Your task to perform on an android device: Add "logitech g pro" to the cart on target Image 0: 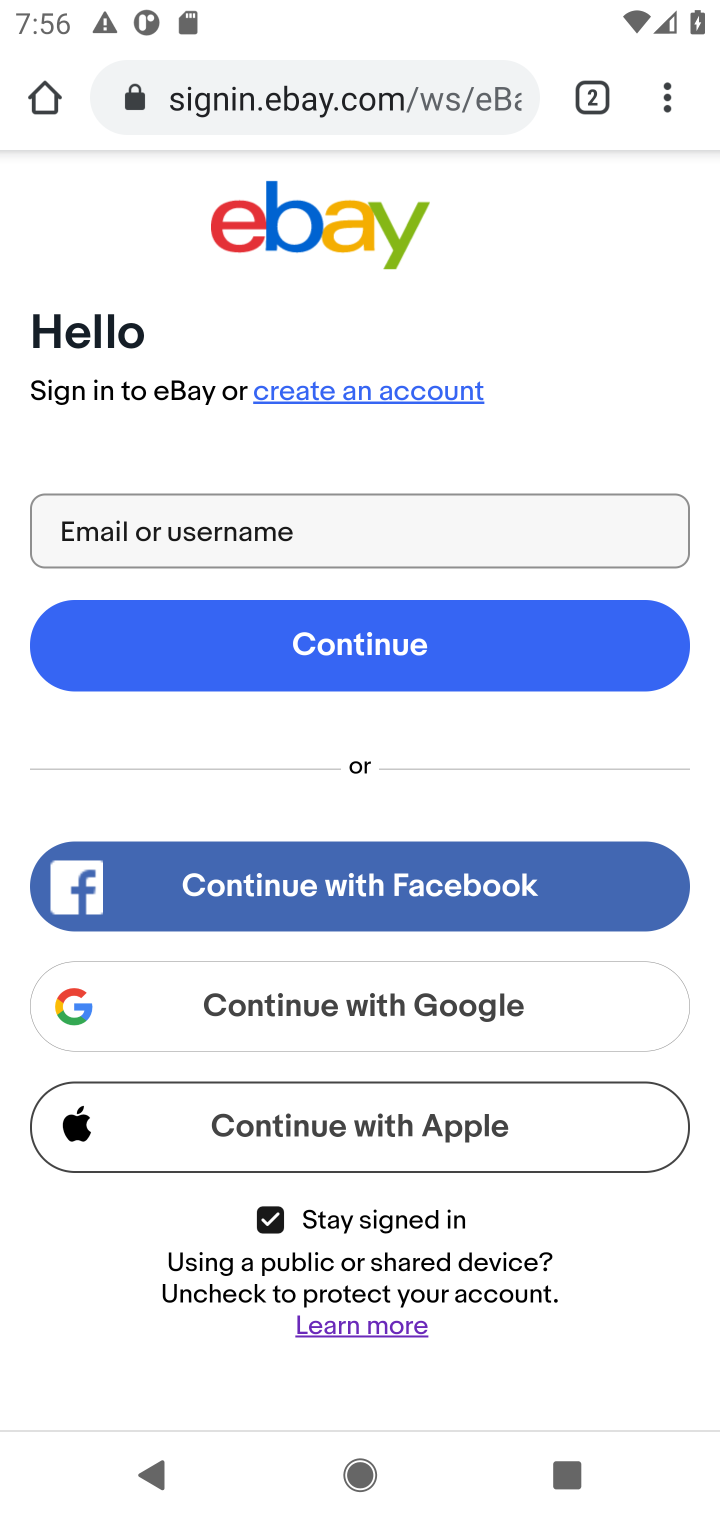
Step 0: press home button
Your task to perform on an android device: Add "logitech g pro" to the cart on target Image 1: 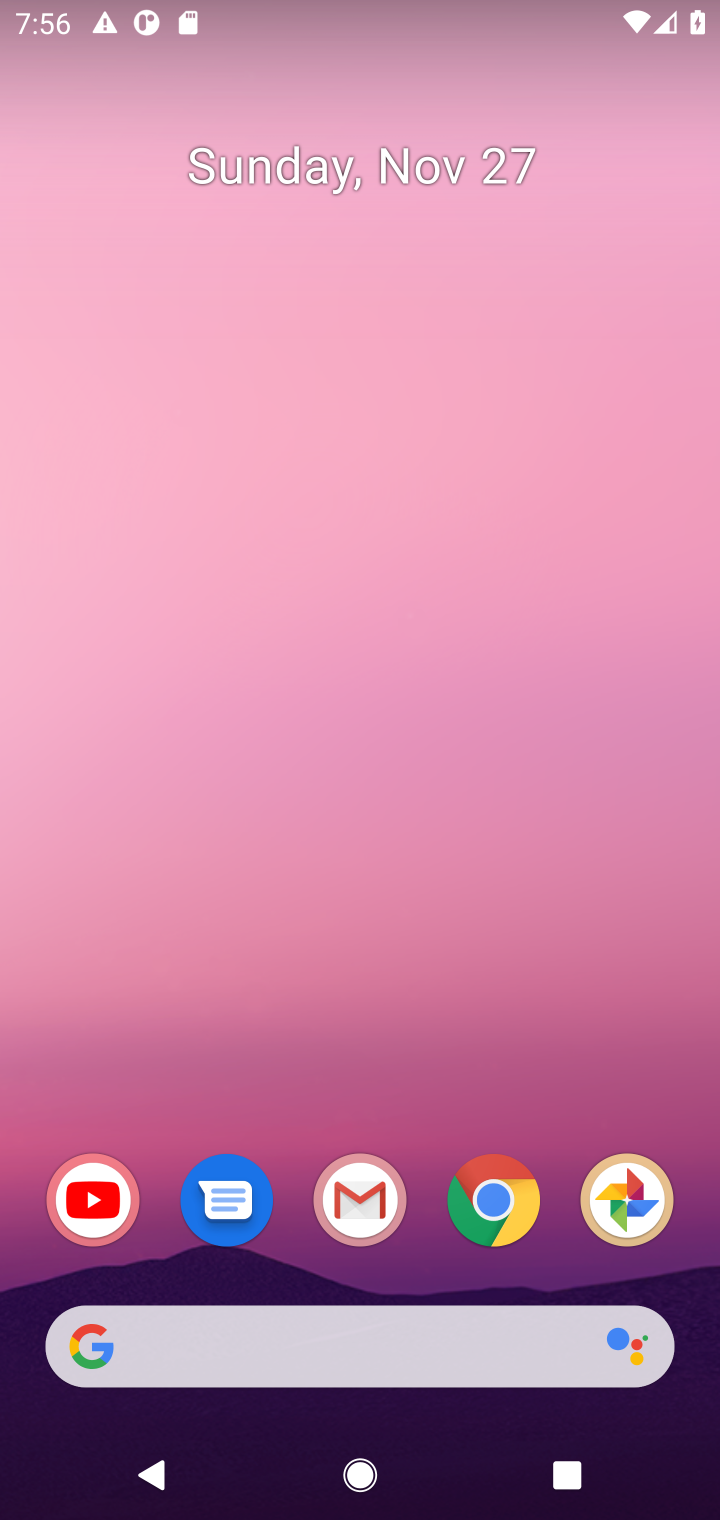
Step 1: click (478, 1217)
Your task to perform on an android device: Add "logitech g pro" to the cart on target Image 2: 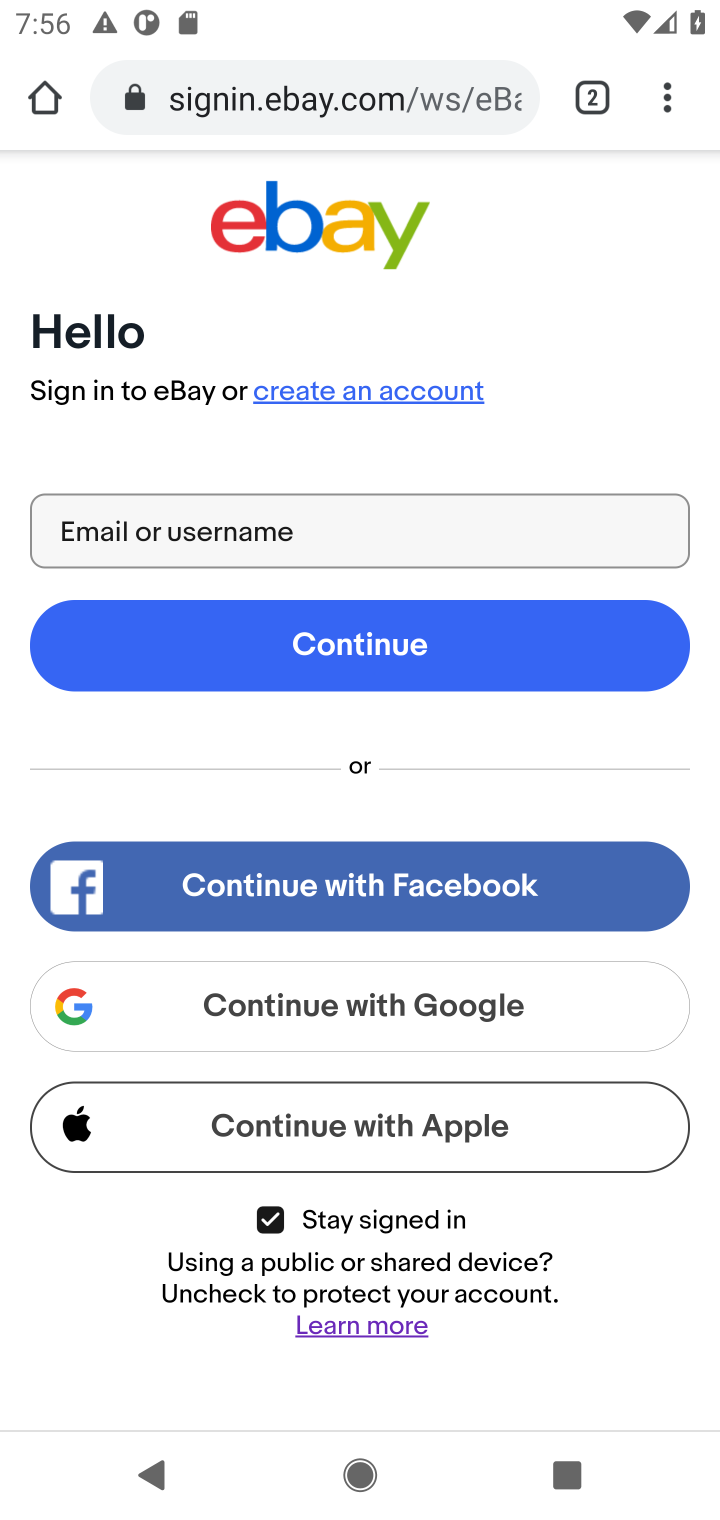
Step 2: click (332, 102)
Your task to perform on an android device: Add "logitech g pro" to the cart on target Image 3: 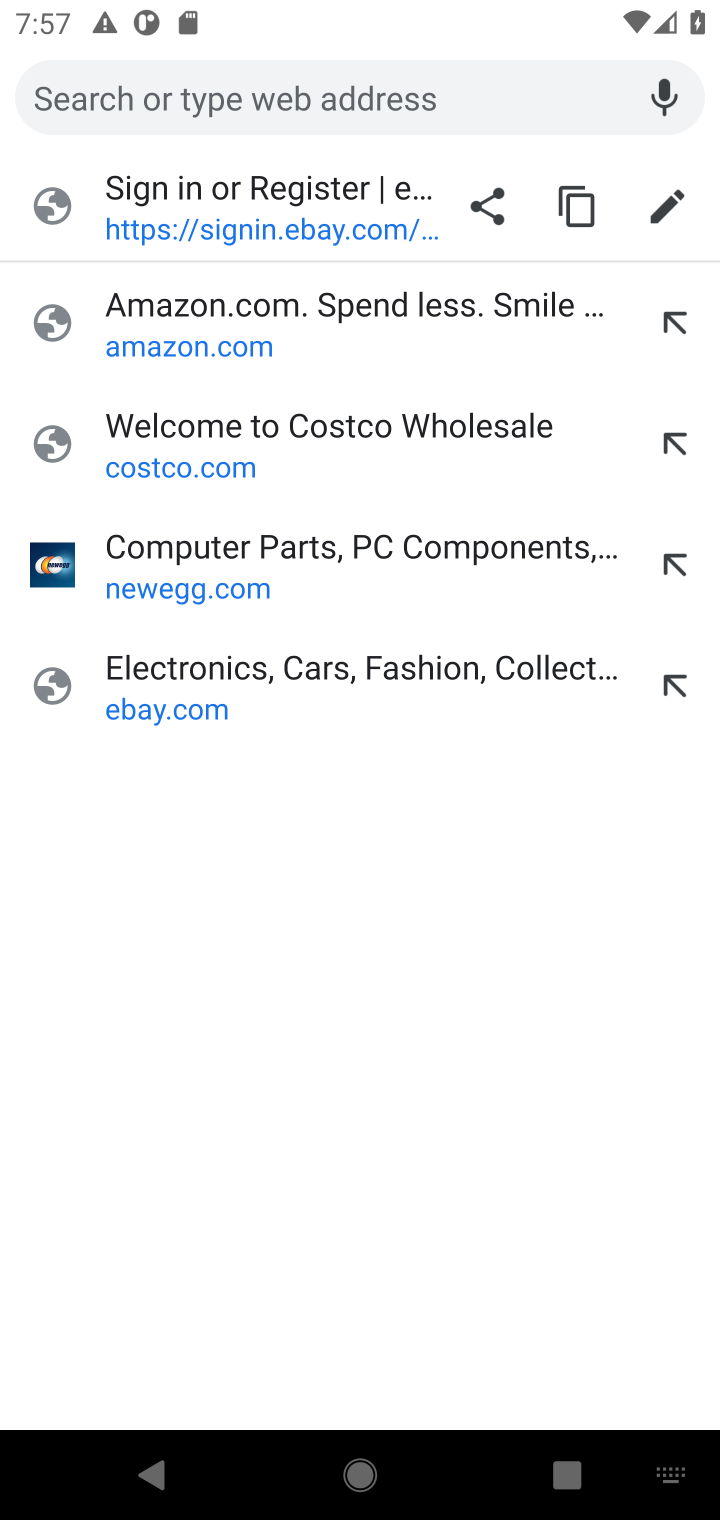
Step 3: type "target.com"
Your task to perform on an android device: Add "logitech g pro" to the cart on target Image 4: 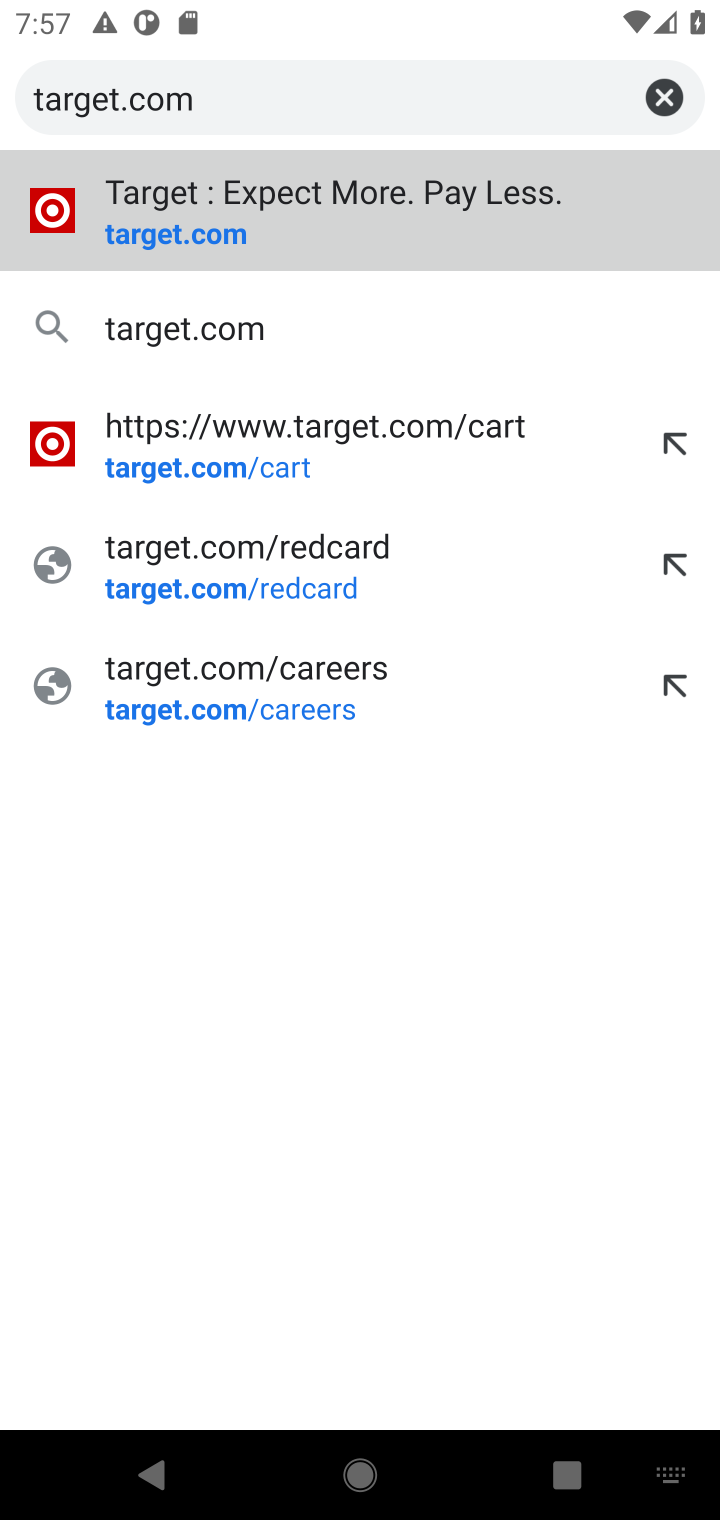
Step 4: click (136, 212)
Your task to perform on an android device: Add "logitech g pro" to the cart on target Image 5: 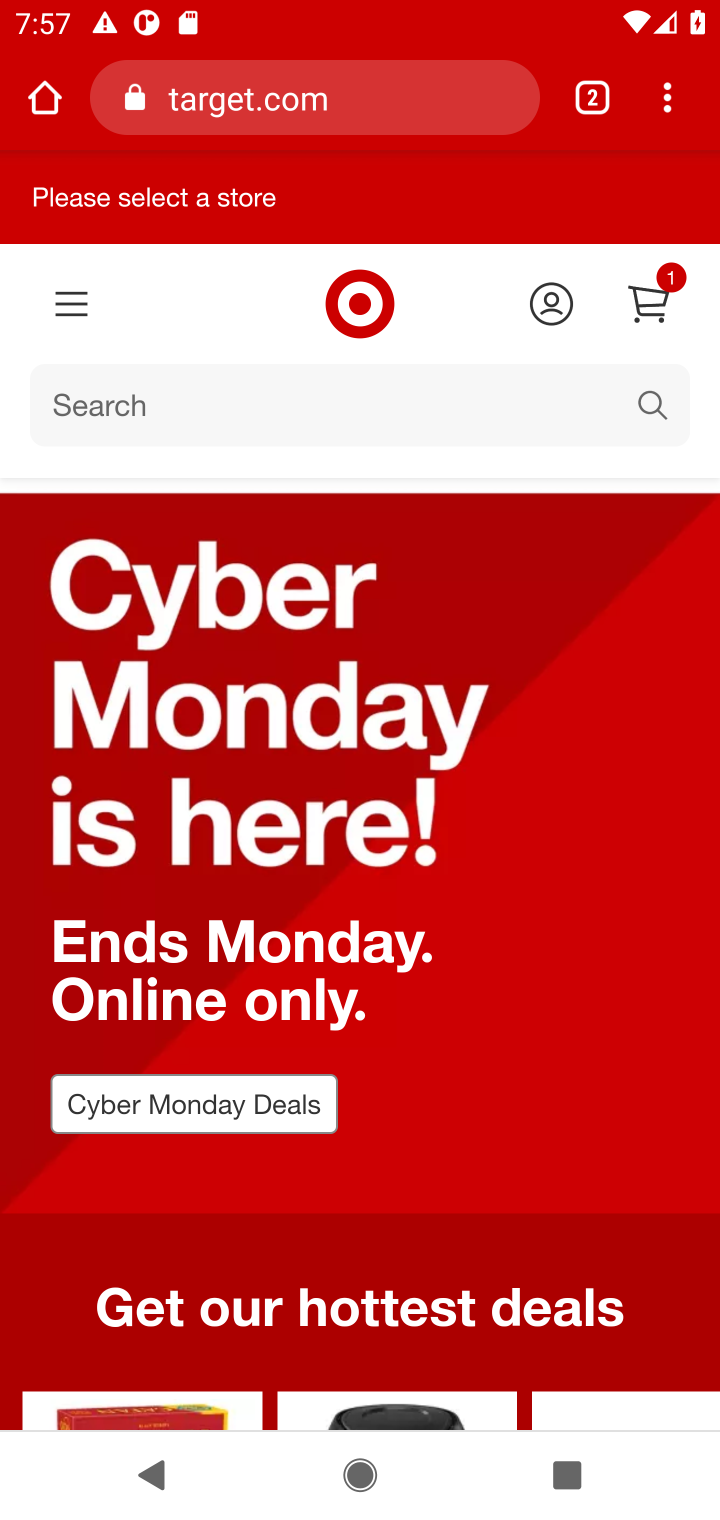
Step 5: click (146, 404)
Your task to perform on an android device: Add "logitech g pro" to the cart on target Image 6: 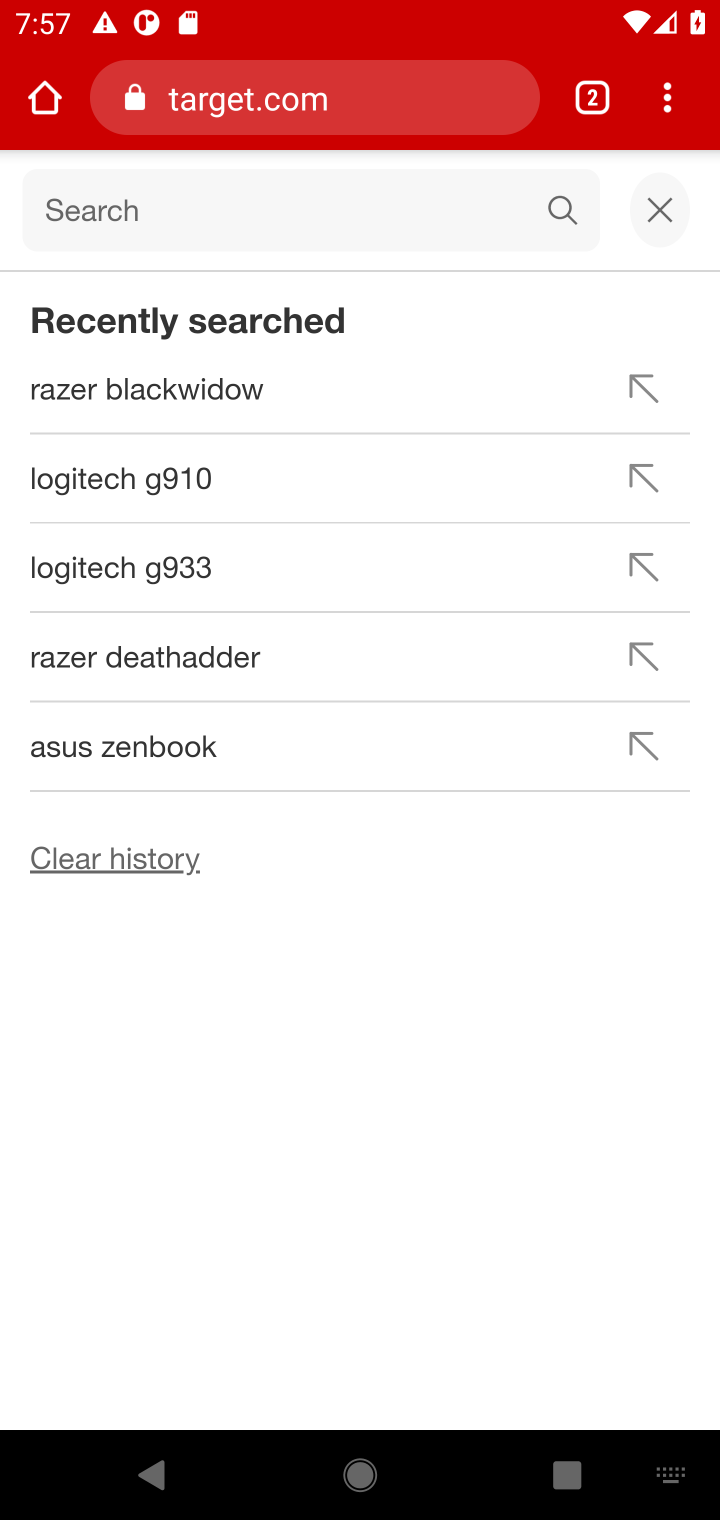
Step 6: type "logitech g pro"
Your task to perform on an android device: Add "logitech g pro" to the cart on target Image 7: 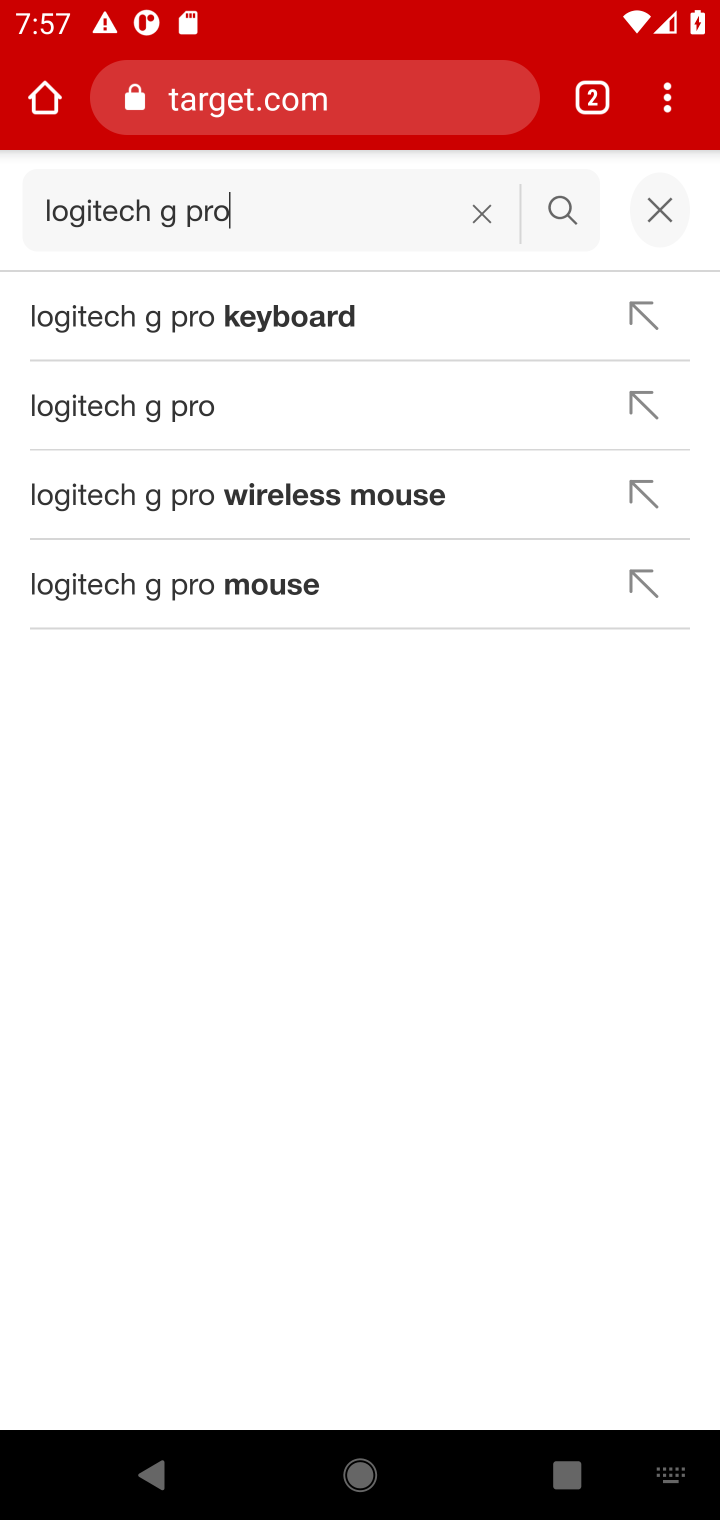
Step 7: click (156, 413)
Your task to perform on an android device: Add "logitech g pro" to the cart on target Image 8: 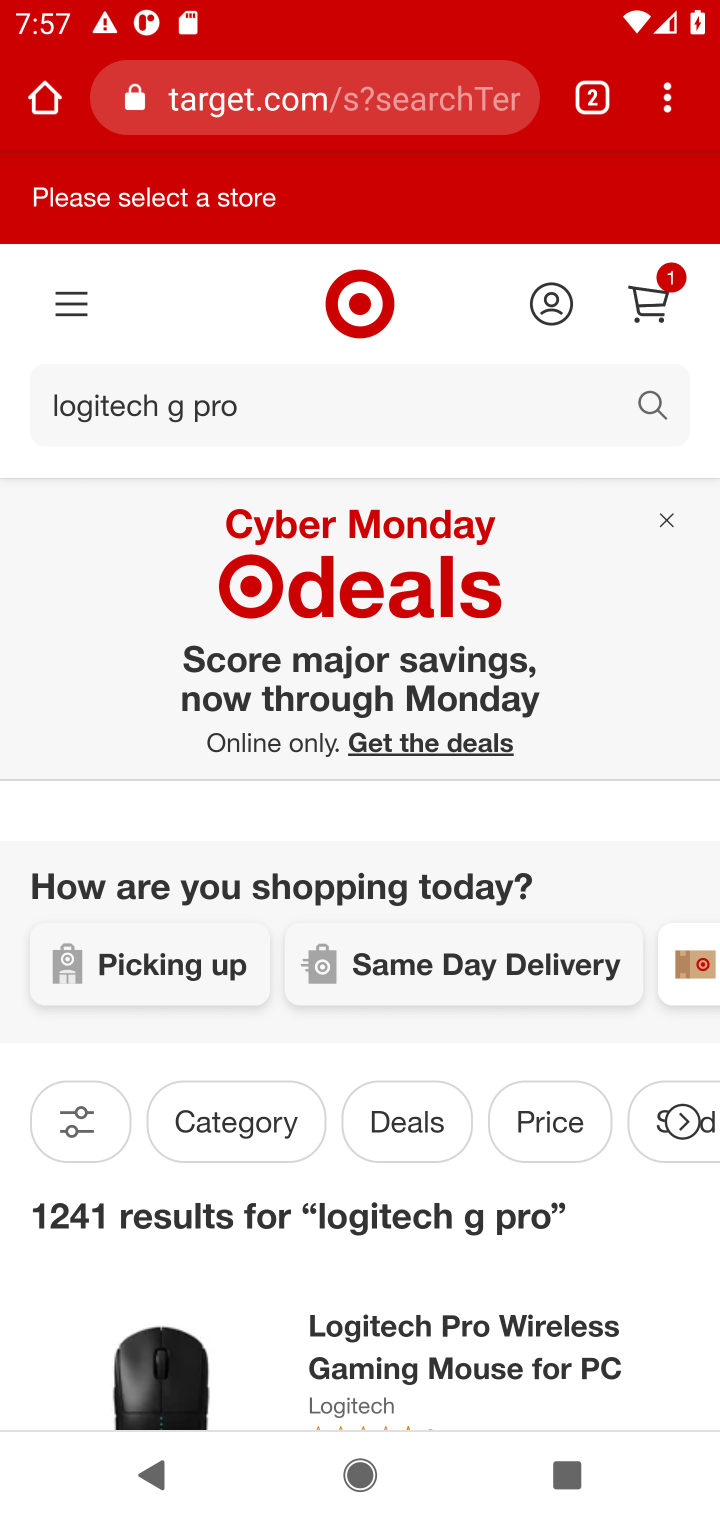
Step 8: task complete